Your task to perform on an android device: Open the calendar and show me this week's events? Image 0: 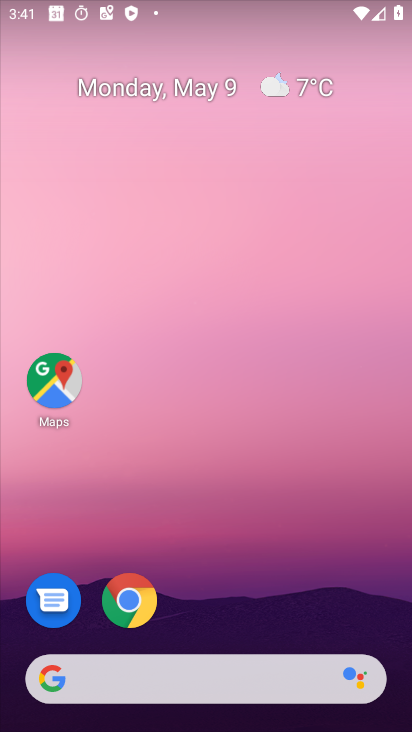
Step 0: drag from (232, 429) to (136, 28)
Your task to perform on an android device: Open the calendar and show me this week's events? Image 1: 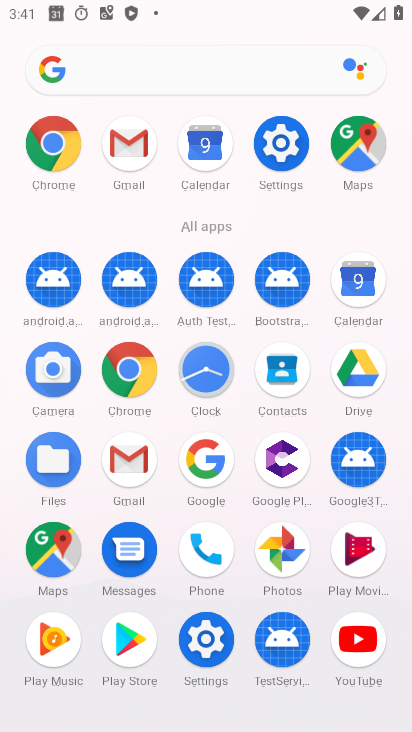
Step 1: click (361, 282)
Your task to perform on an android device: Open the calendar and show me this week's events? Image 2: 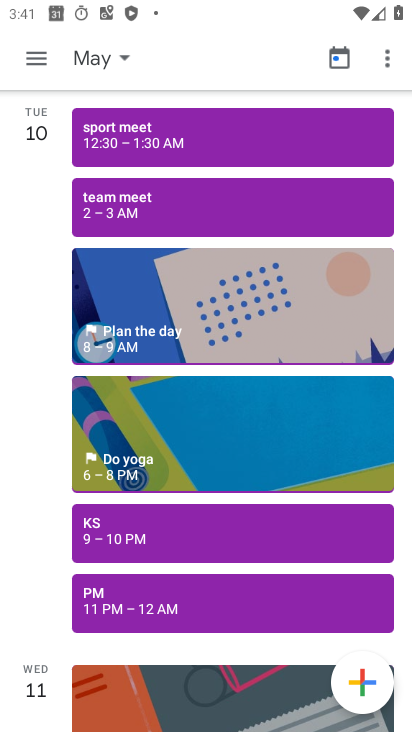
Step 2: click (40, 61)
Your task to perform on an android device: Open the calendar and show me this week's events? Image 3: 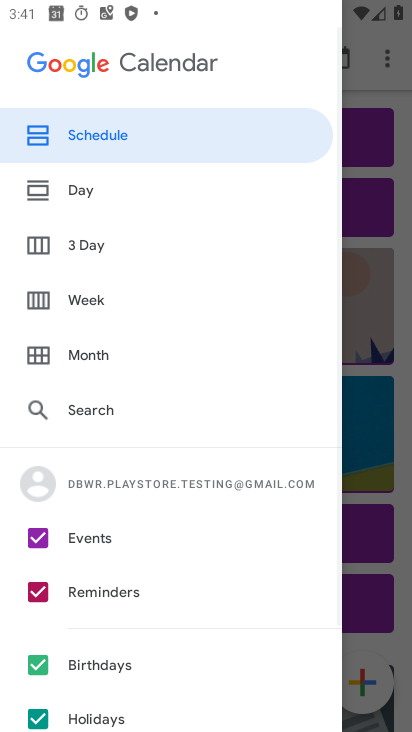
Step 3: click (97, 306)
Your task to perform on an android device: Open the calendar and show me this week's events? Image 4: 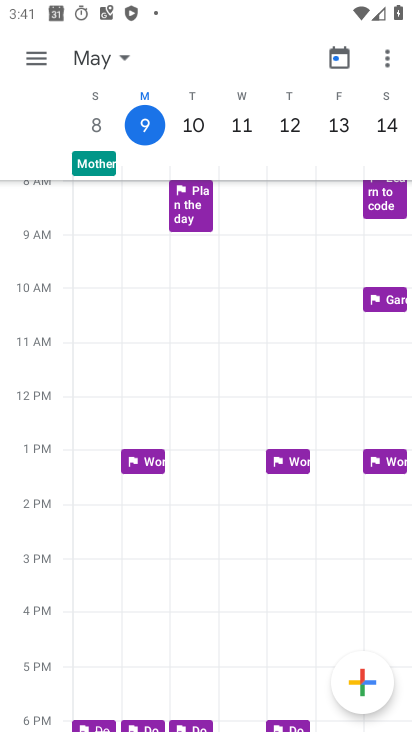
Step 4: task complete